Your task to perform on an android device: What's on my calendar tomorrow? Image 0: 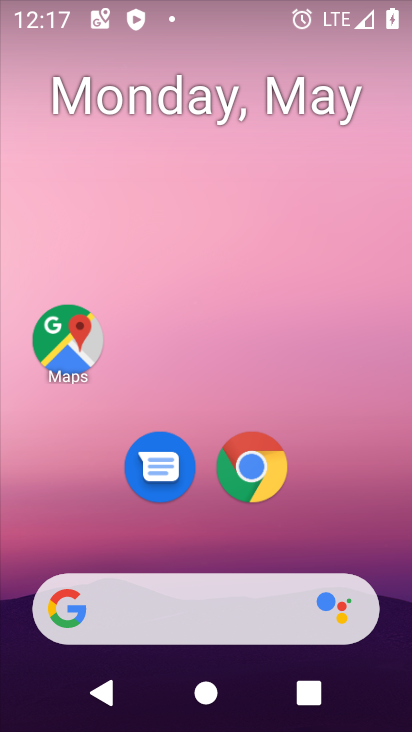
Step 0: drag from (353, 512) to (382, 10)
Your task to perform on an android device: What's on my calendar tomorrow? Image 1: 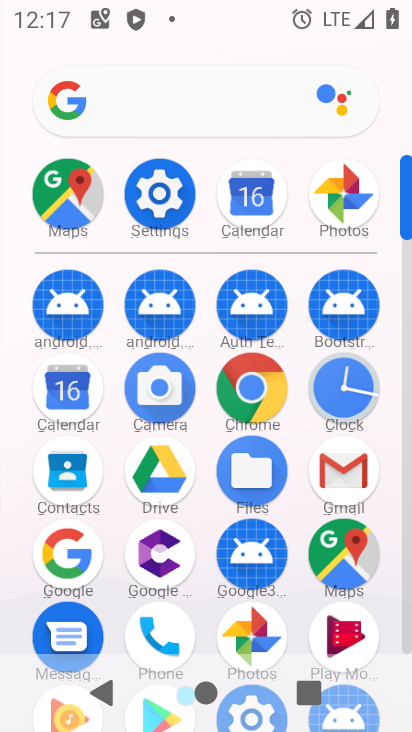
Step 1: click (255, 203)
Your task to perform on an android device: What's on my calendar tomorrow? Image 2: 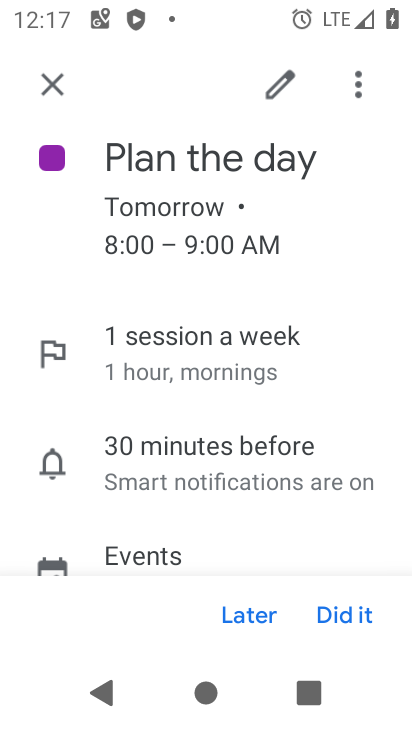
Step 2: click (43, 97)
Your task to perform on an android device: What's on my calendar tomorrow? Image 3: 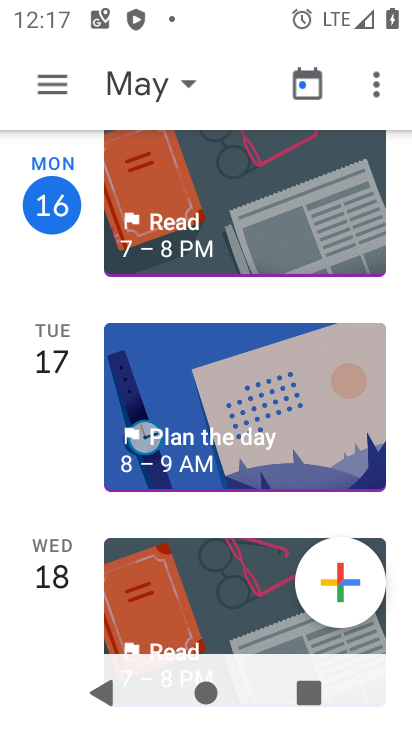
Step 3: click (210, 447)
Your task to perform on an android device: What's on my calendar tomorrow? Image 4: 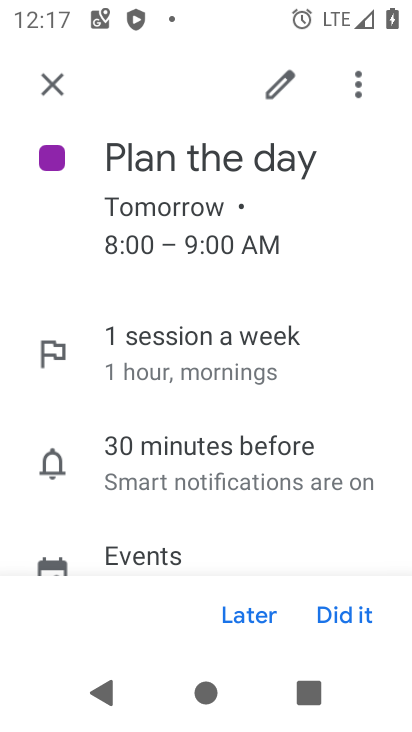
Step 4: task complete